Your task to perform on an android device: Go to Android settings Image 0: 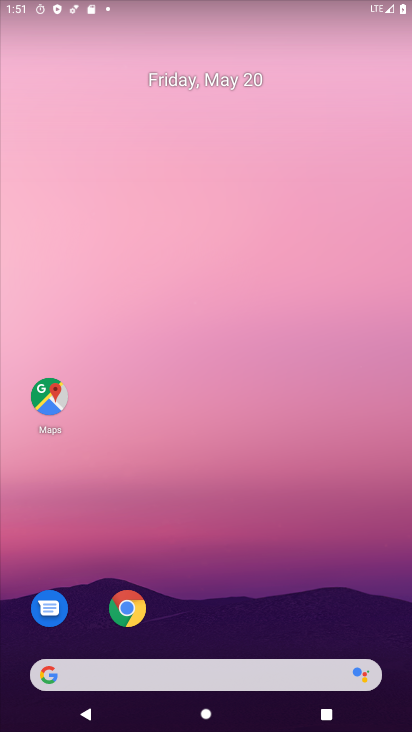
Step 0: drag from (287, 587) to (366, 73)
Your task to perform on an android device: Go to Android settings Image 1: 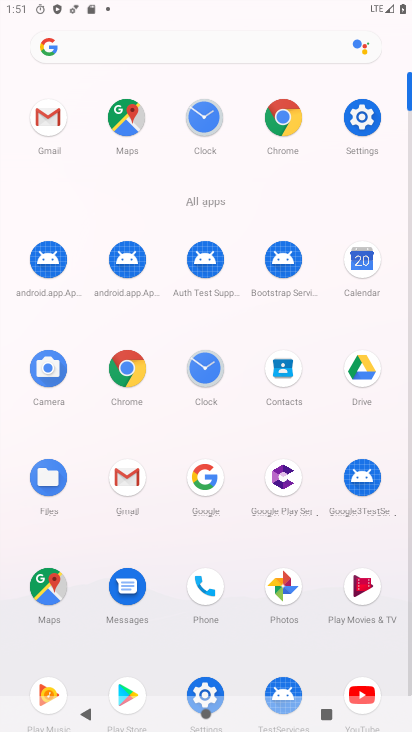
Step 1: click (364, 120)
Your task to perform on an android device: Go to Android settings Image 2: 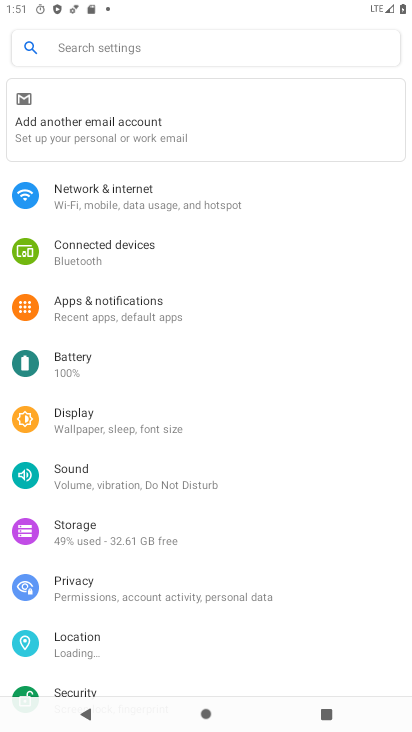
Step 2: task complete